Your task to perform on an android device: open wifi settings Image 0: 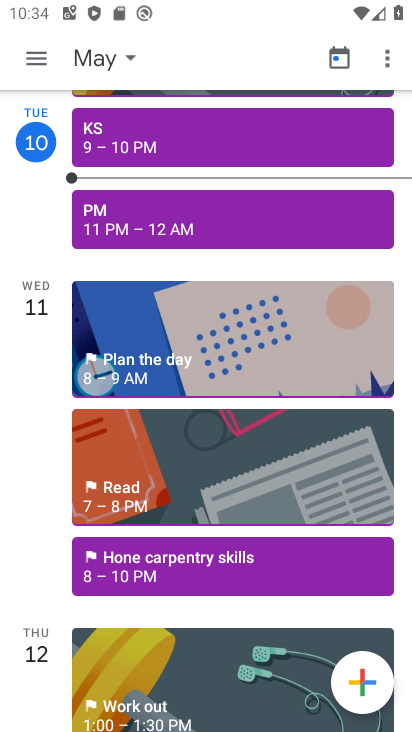
Step 0: press home button
Your task to perform on an android device: open wifi settings Image 1: 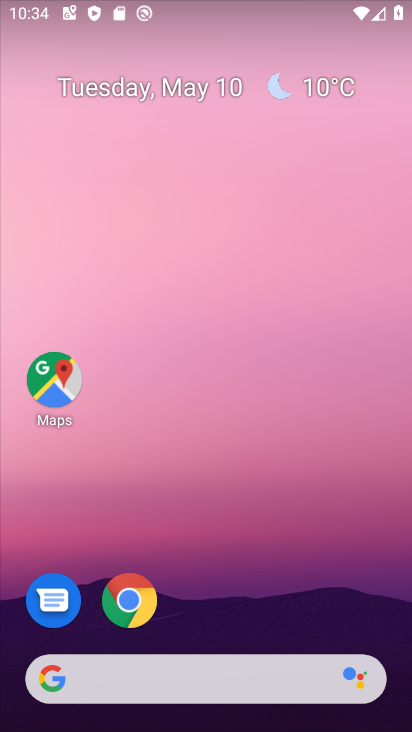
Step 1: drag from (239, 567) to (237, 134)
Your task to perform on an android device: open wifi settings Image 2: 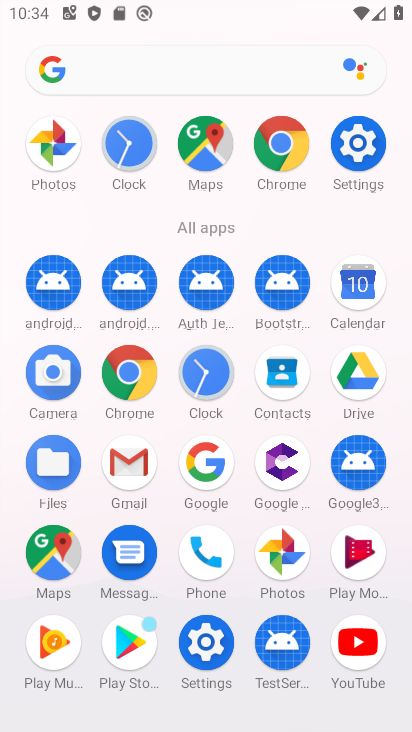
Step 2: click (350, 154)
Your task to perform on an android device: open wifi settings Image 3: 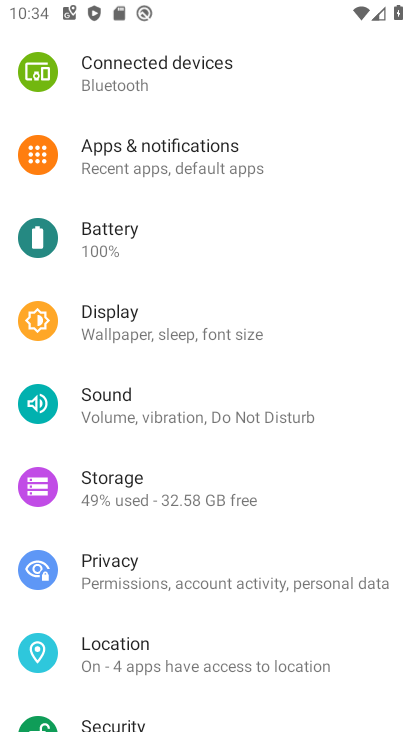
Step 3: drag from (234, 131) to (276, 637)
Your task to perform on an android device: open wifi settings Image 4: 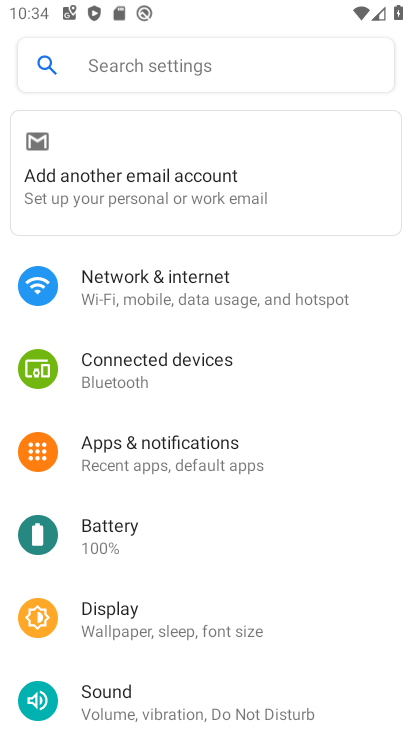
Step 4: click (191, 299)
Your task to perform on an android device: open wifi settings Image 5: 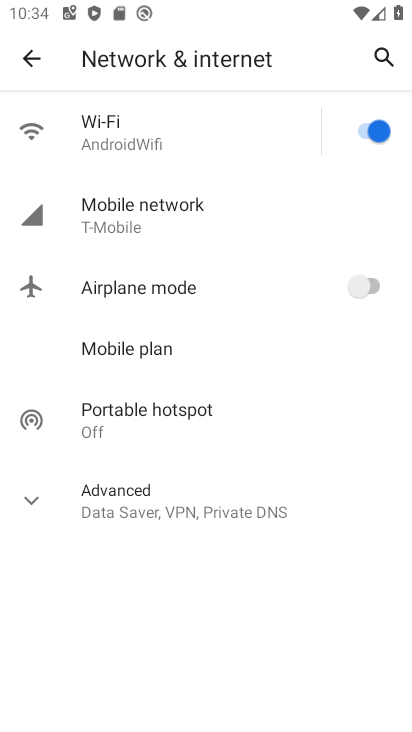
Step 5: click (147, 135)
Your task to perform on an android device: open wifi settings Image 6: 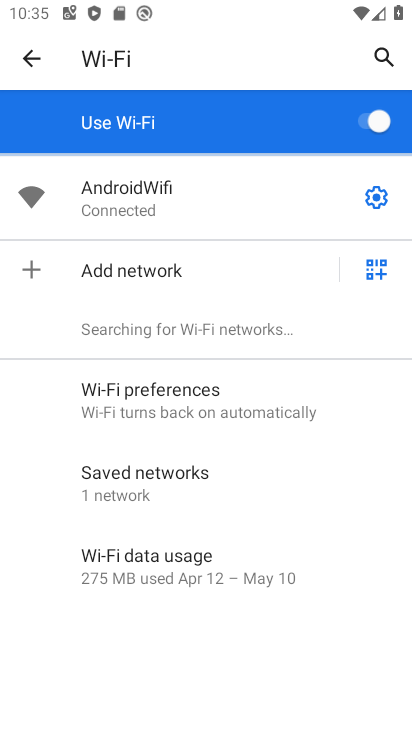
Step 6: task complete